Your task to perform on an android device: Open Amazon Image 0: 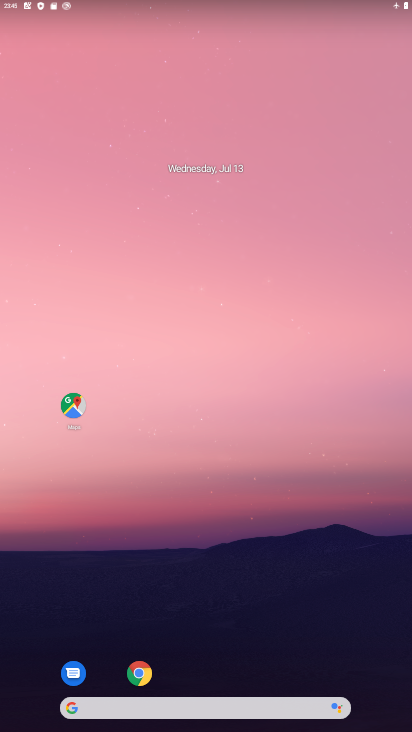
Step 0: click (130, 676)
Your task to perform on an android device: Open Amazon Image 1: 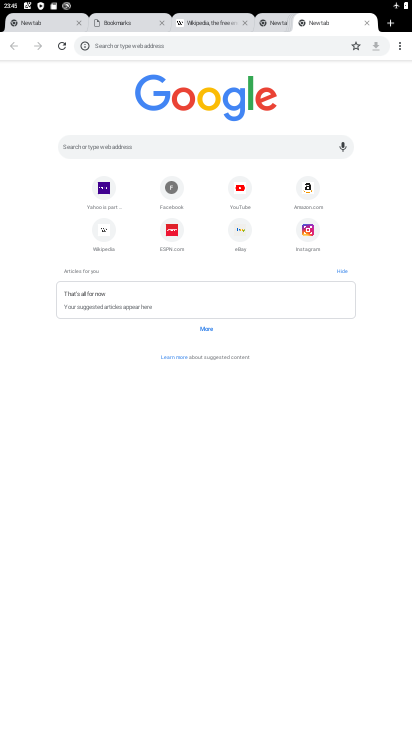
Step 1: click (303, 195)
Your task to perform on an android device: Open Amazon Image 2: 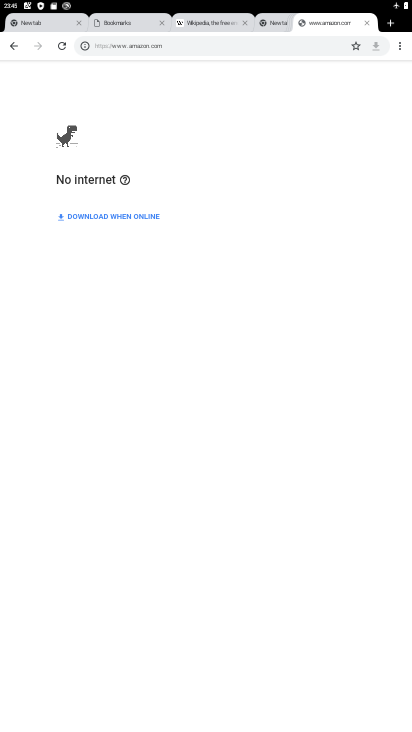
Step 2: task complete